Your task to perform on an android device: refresh tabs in the chrome app Image 0: 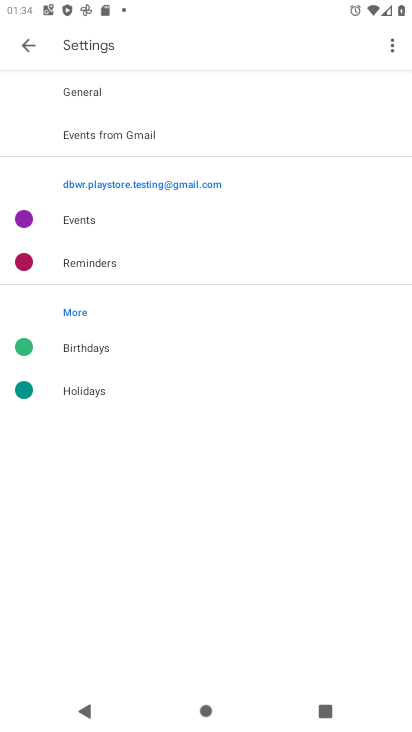
Step 0: press home button
Your task to perform on an android device: refresh tabs in the chrome app Image 1: 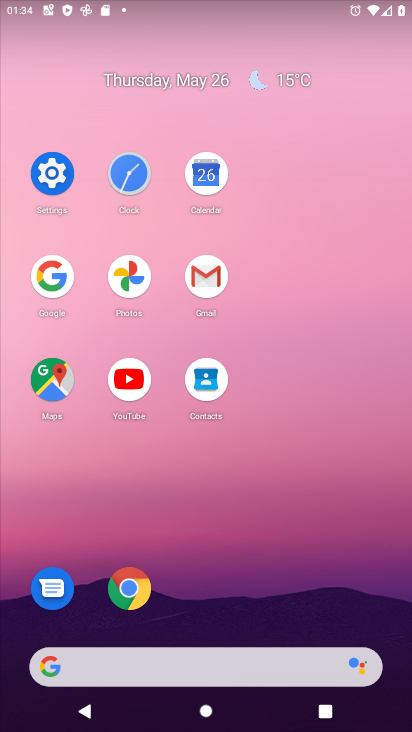
Step 1: click (143, 592)
Your task to perform on an android device: refresh tabs in the chrome app Image 2: 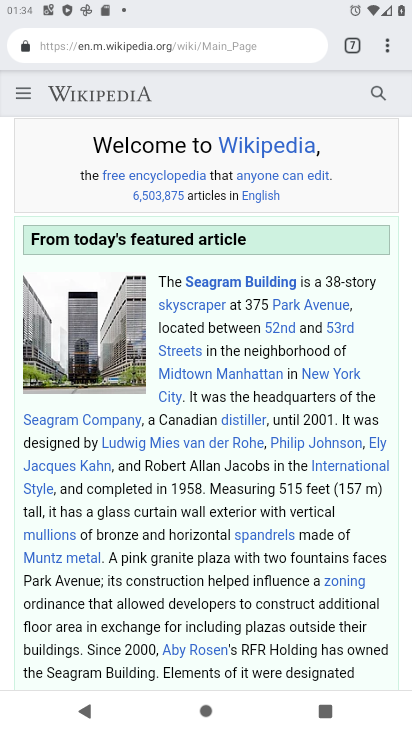
Step 2: click (383, 43)
Your task to perform on an android device: refresh tabs in the chrome app Image 3: 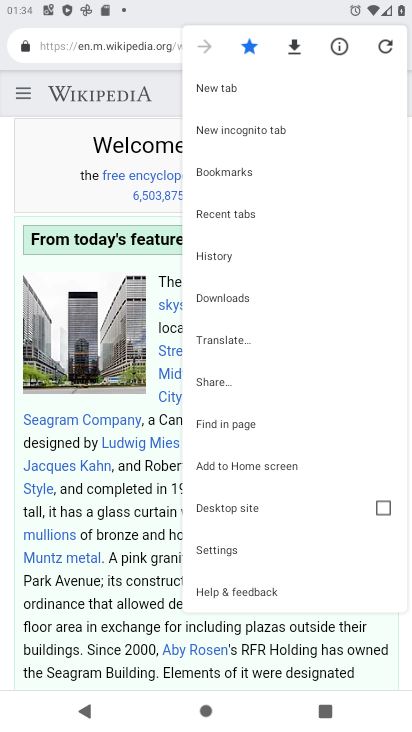
Step 3: click (381, 47)
Your task to perform on an android device: refresh tabs in the chrome app Image 4: 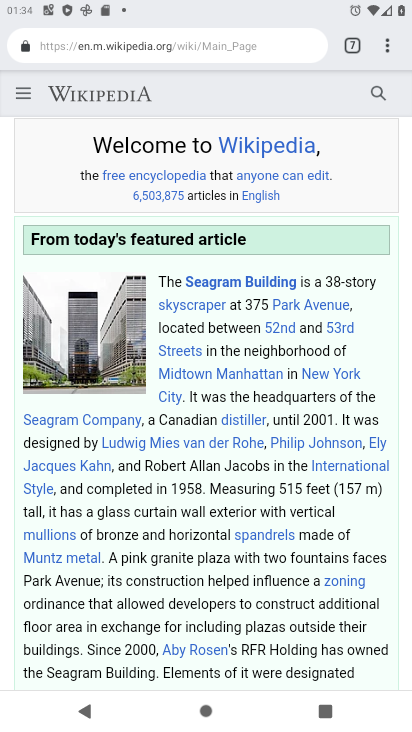
Step 4: task complete